Your task to perform on an android device: Open Youtube and go to the subscriptions tab Image 0: 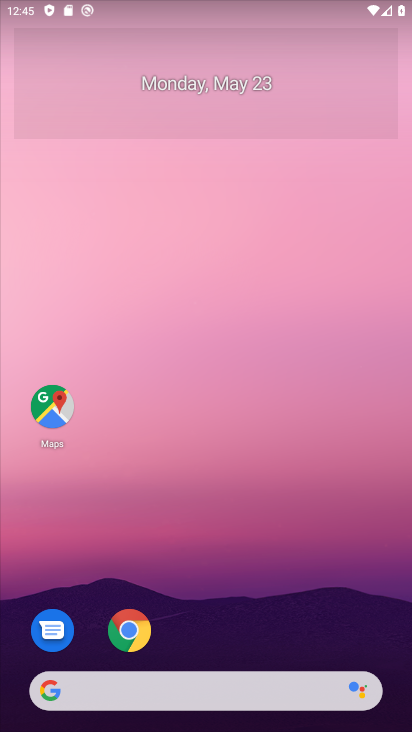
Step 0: drag from (309, 551) to (305, 122)
Your task to perform on an android device: Open Youtube and go to the subscriptions tab Image 1: 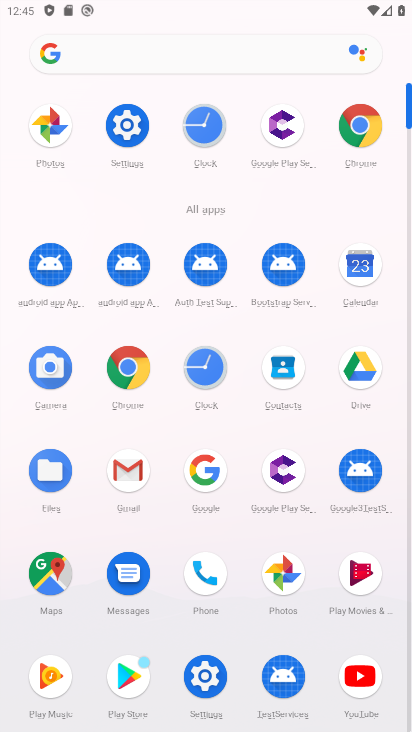
Step 1: click (367, 681)
Your task to perform on an android device: Open Youtube and go to the subscriptions tab Image 2: 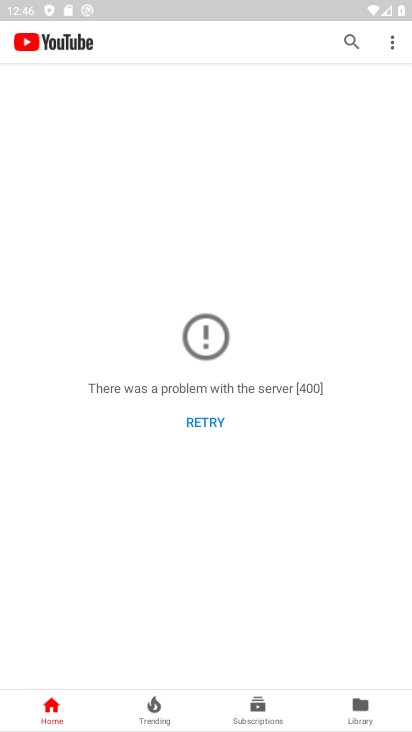
Step 2: click (256, 705)
Your task to perform on an android device: Open Youtube and go to the subscriptions tab Image 3: 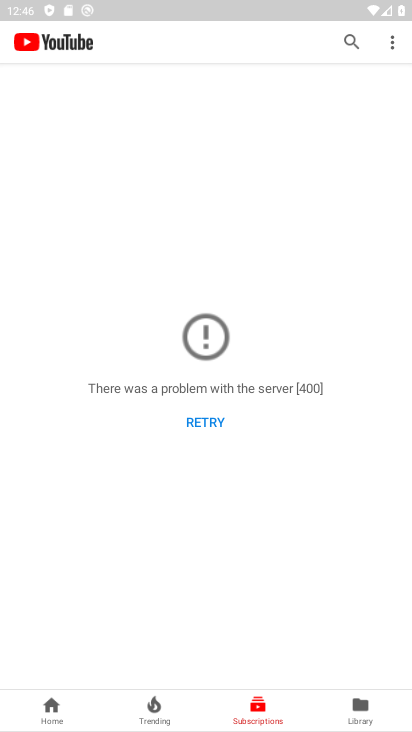
Step 3: task complete